Your task to perform on an android device: Open Maps and search for coffee Image 0: 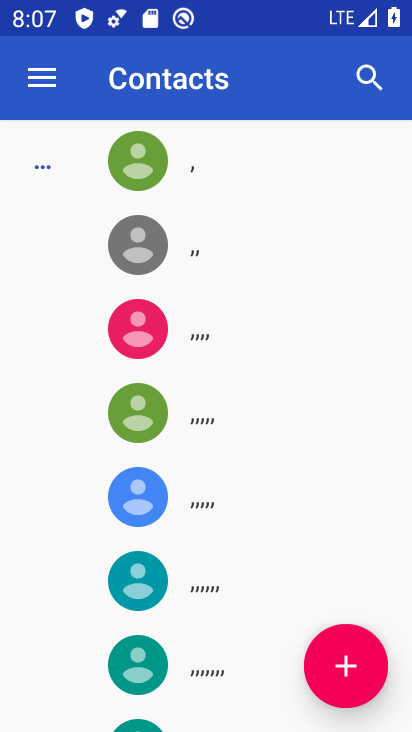
Step 0: press back button
Your task to perform on an android device: Open Maps and search for coffee Image 1: 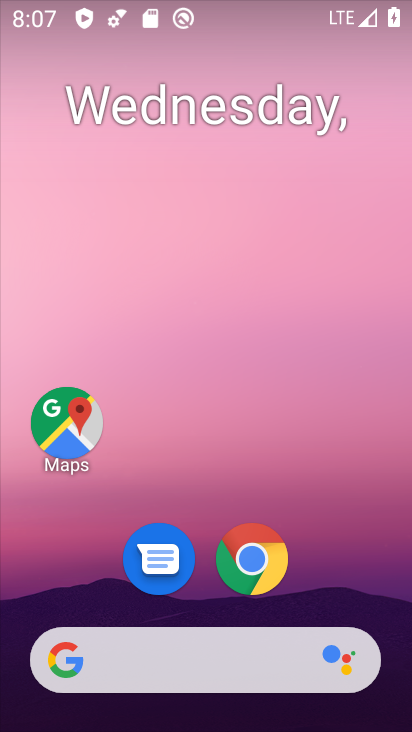
Step 1: click (86, 438)
Your task to perform on an android device: Open Maps and search for coffee Image 2: 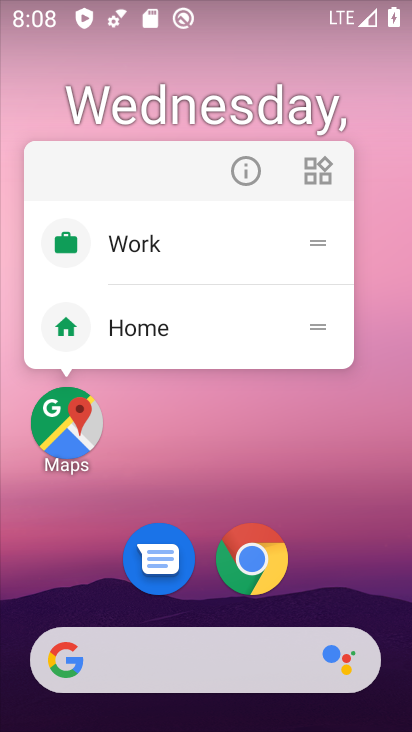
Step 2: click (84, 428)
Your task to perform on an android device: Open Maps and search for coffee Image 3: 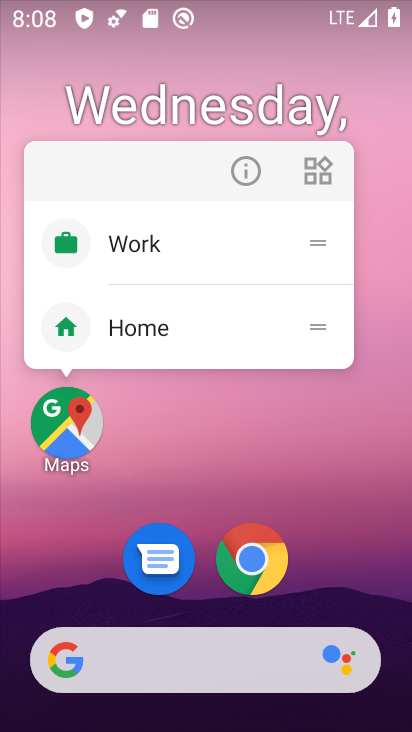
Step 3: click (56, 405)
Your task to perform on an android device: Open Maps and search for coffee Image 4: 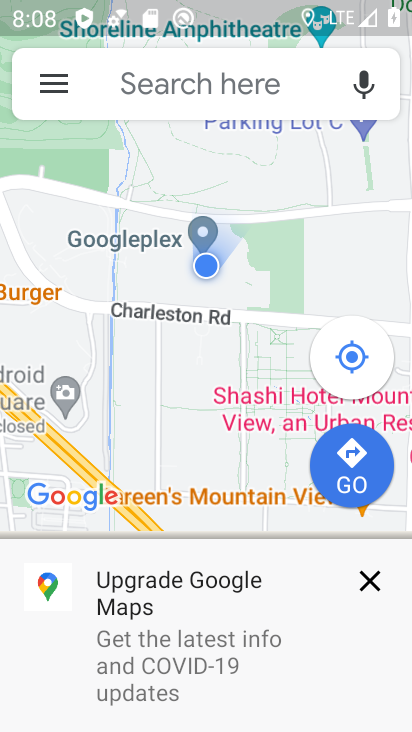
Step 4: click (155, 87)
Your task to perform on an android device: Open Maps and search for coffee Image 5: 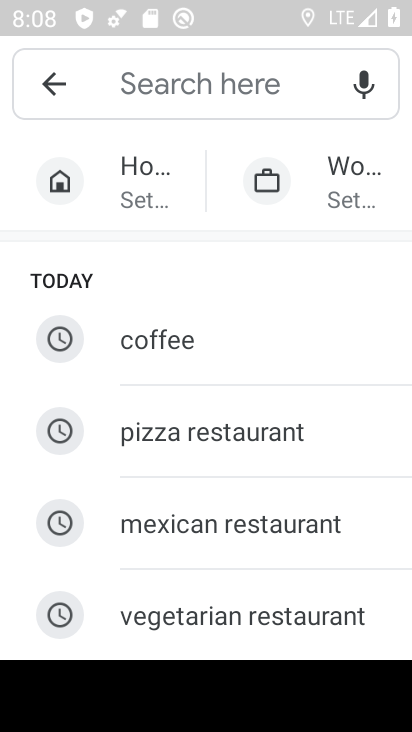
Step 5: click (181, 355)
Your task to perform on an android device: Open Maps and search for coffee Image 6: 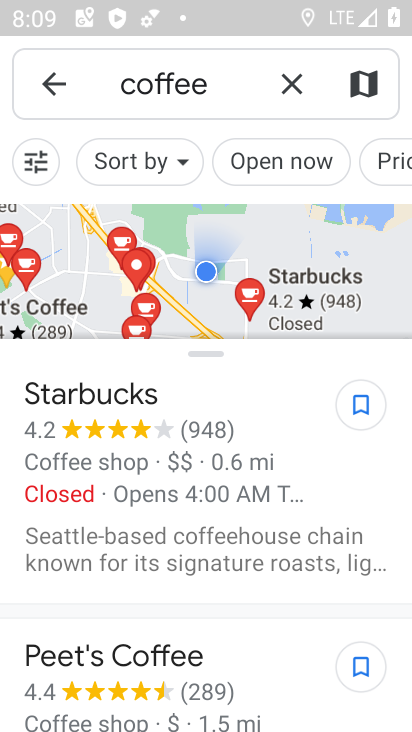
Step 6: task complete